Your task to perform on an android device: What is the news today? Image 0: 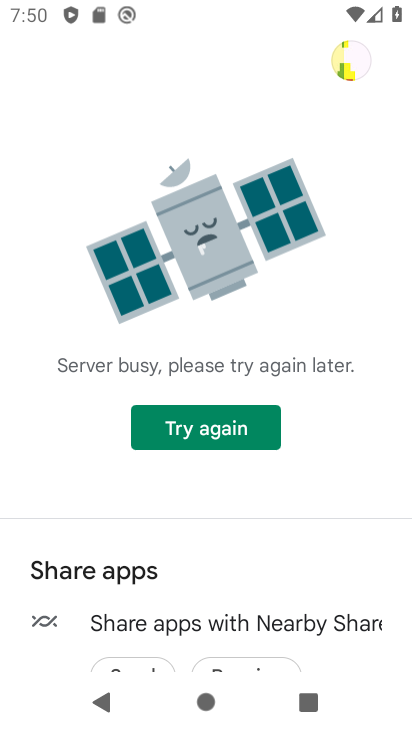
Step 0: press home button
Your task to perform on an android device: What is the news today? Image 1: 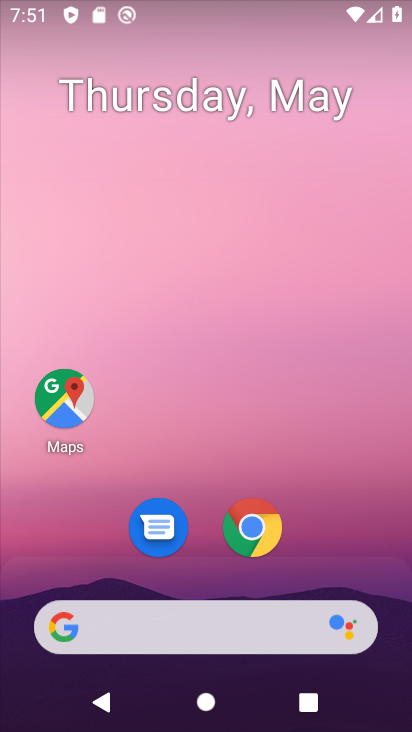
Step 1: drag from (201, 596) to (254, 153)
Your task to perform on an android device: What is the news today? Image 2: 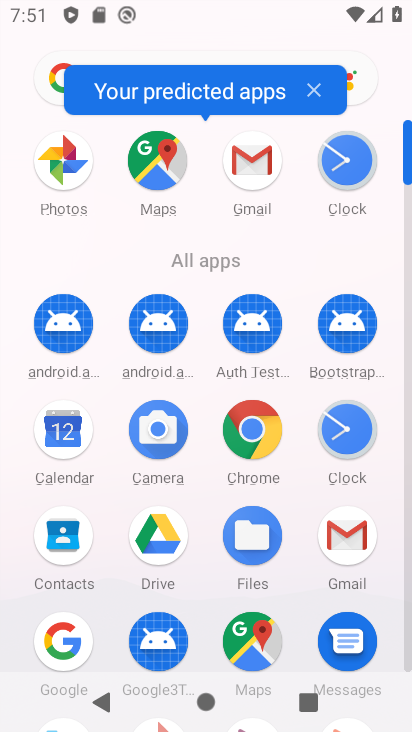
Step 2: click (72, 636)
Your task to perform on an android device: What is the news today? Image 3: 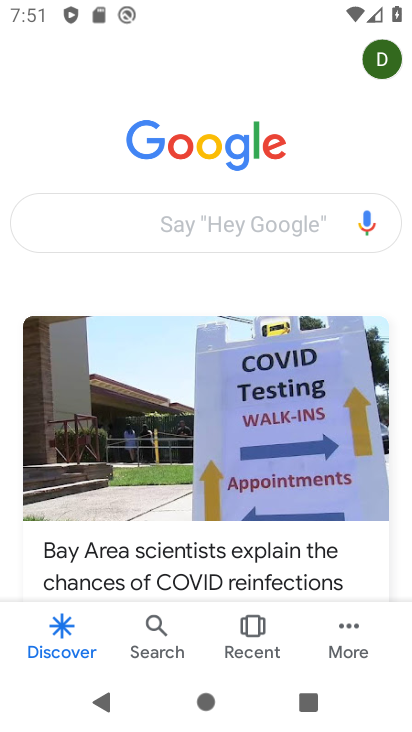
Step 3: click (118, 221)
Your task to perform on an android device: What is the news today? Image 4: 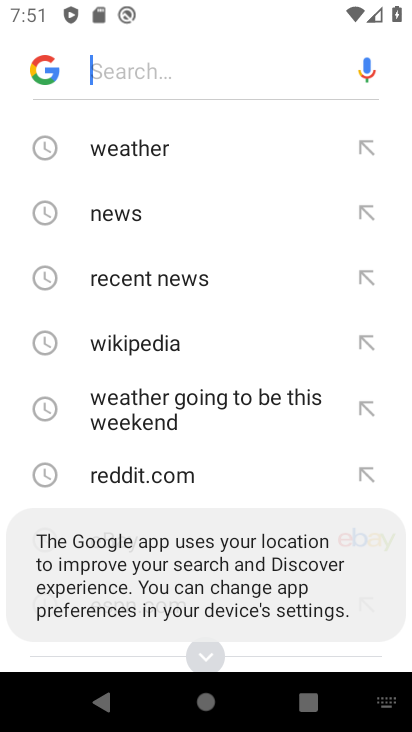
Step 4: click (130, 280)
Your task to perform on an android device: What is the news today? Image 5: 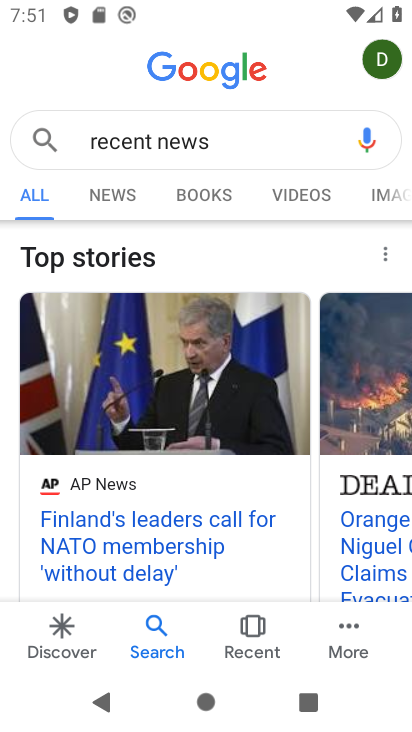
Step 5: task complete